Your task to perform on an android device: Open Google Maps Image 0: 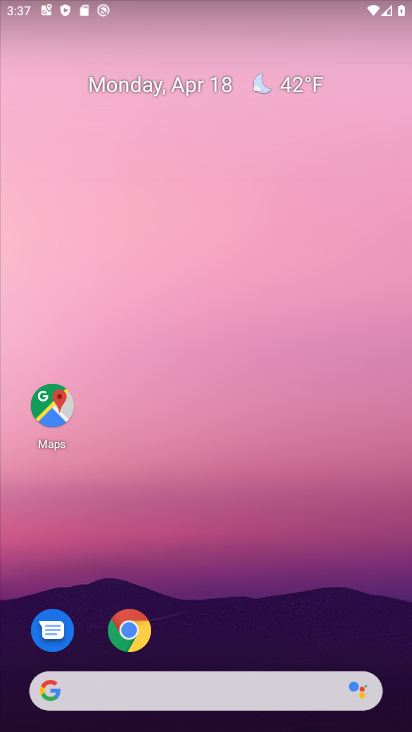
Step 0: click (50, 395)
Your task to perform on an android device: Open Google Maps Image 1: 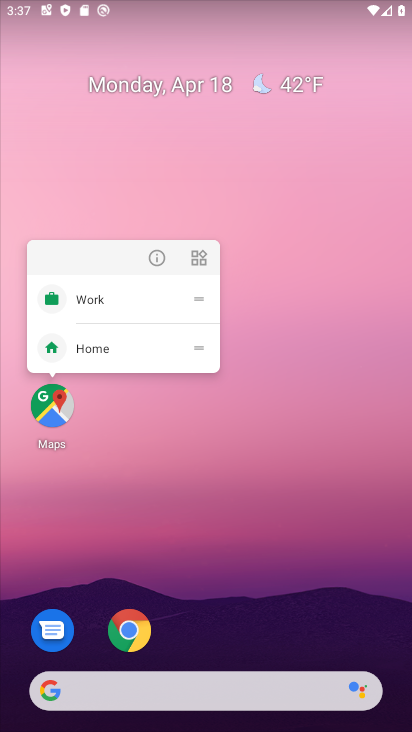
Step 1: click (53, 422)
Your task to perform on an android device: Open Google Maps Image 2: 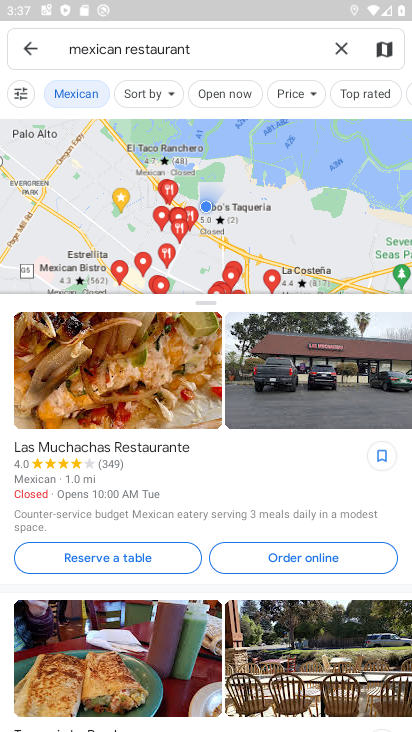
Step 2: task complete